Your task to perform on an android device: Open wifi settings Image 0: 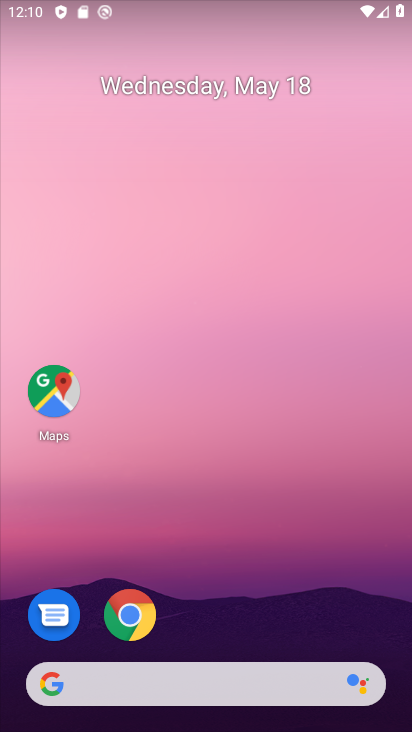
Step 0: drag from (199, 653) to (321, 115)
Your task to perform on an android device: Open wifi settings Image 1: 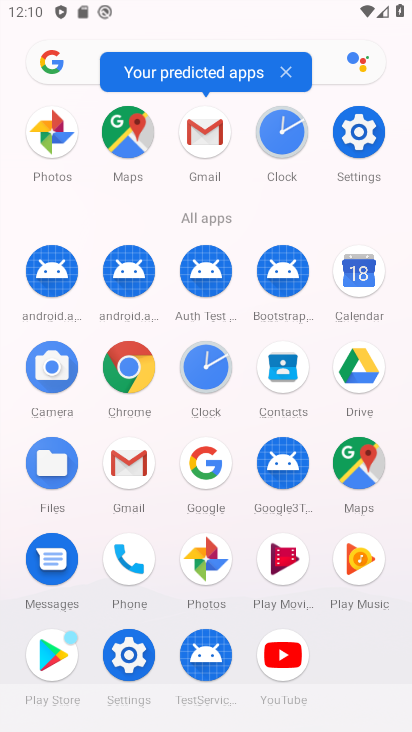
Step 1: click (128, 635)
Your task to perform on an android device: Open wifi settings Image 2: 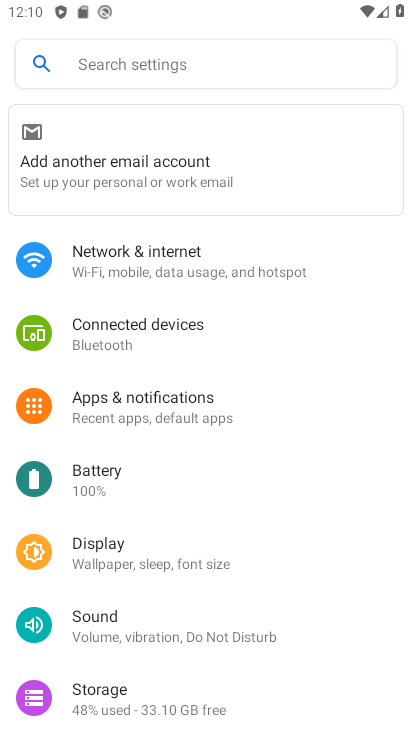
Step 2: click (140, 268)
Your task to perform on an android device: Open wifi settings Image 3: 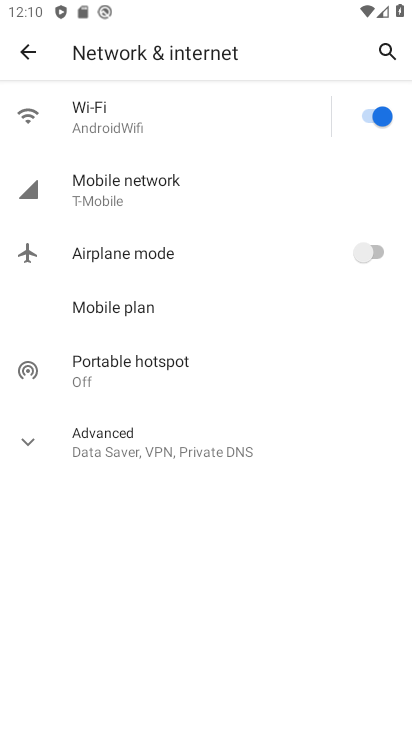
Step 3: click (157, 127)
Your task to perform on an android device: Open wifi settings Image 4: 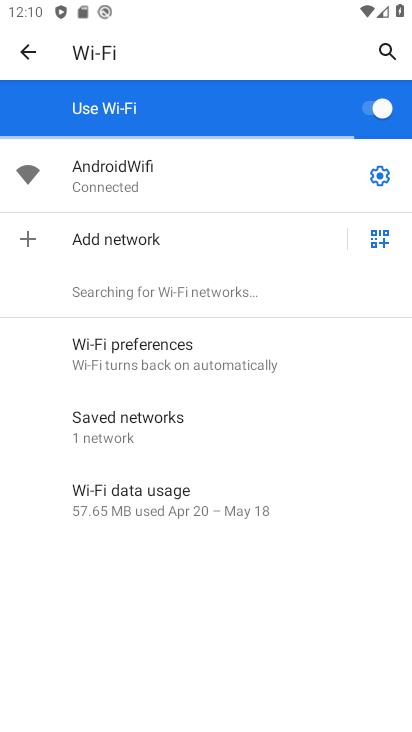
Step 4: task complete